Your task to perform on an android device: Open Google Image 0: 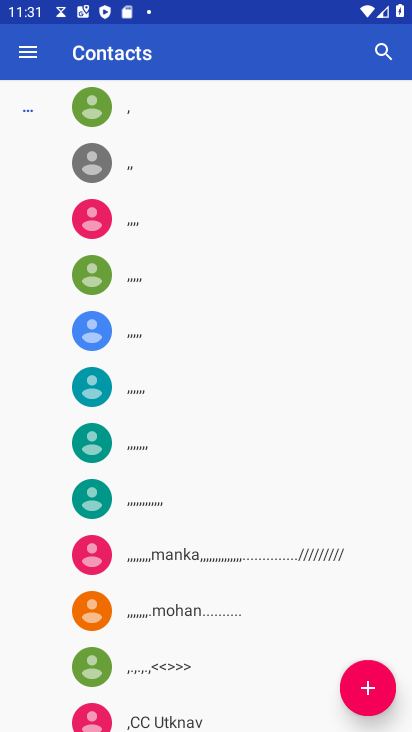
Step 0: press home button
Your task to perform on an android device: Open Google Image 1: 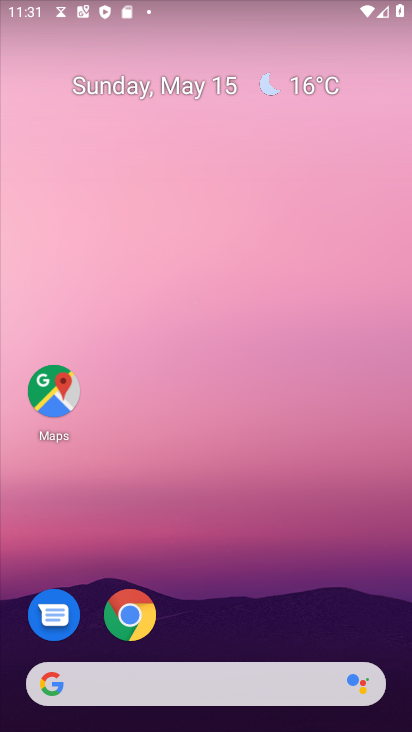
Step 1: drag from (15, 150) to (339, 0)
Your task to perform on an android device: Open Google Image 2: 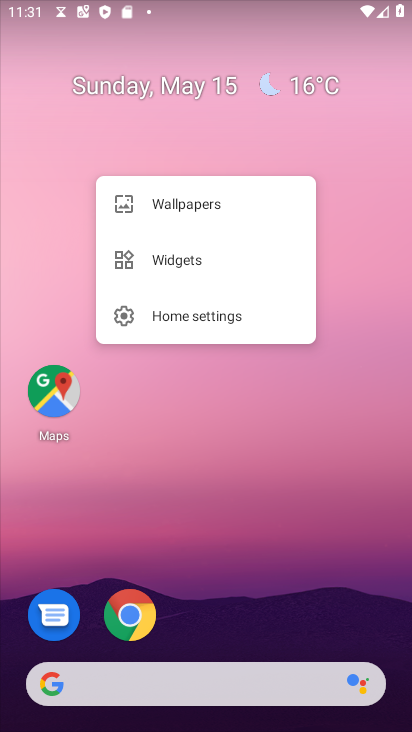
Step 2: drag from (288, 608) to (248, 20)
Your task to perform on an android device: Open Google Image 3: 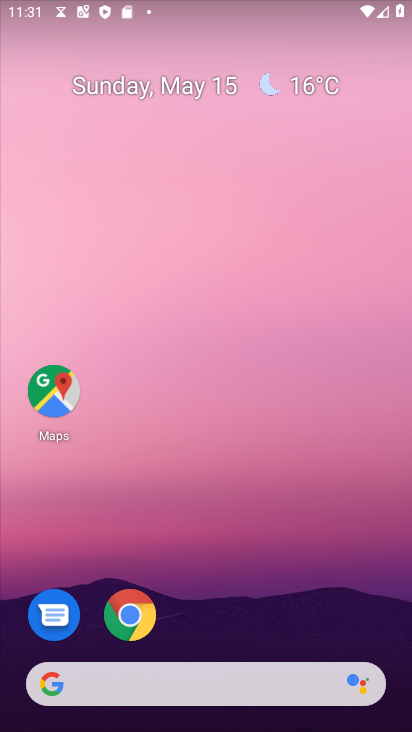
Step 3: drag from (267, 660) to (260, 4)
Your task to perform on an android device: Open Google Image 4: 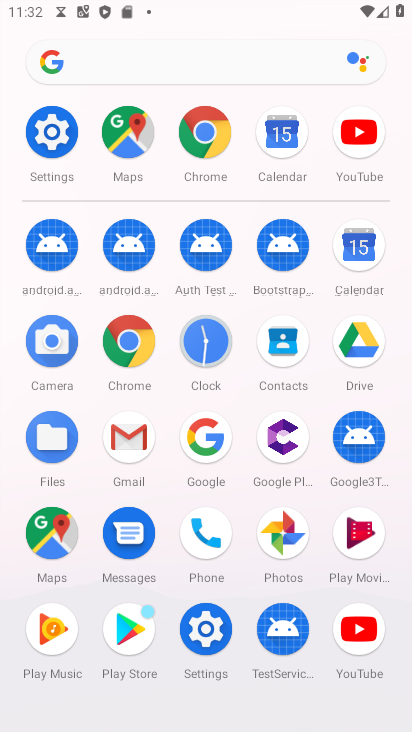
Step 4: click (222, 433)
Your task to perform on an android device: Open Google Image 5: 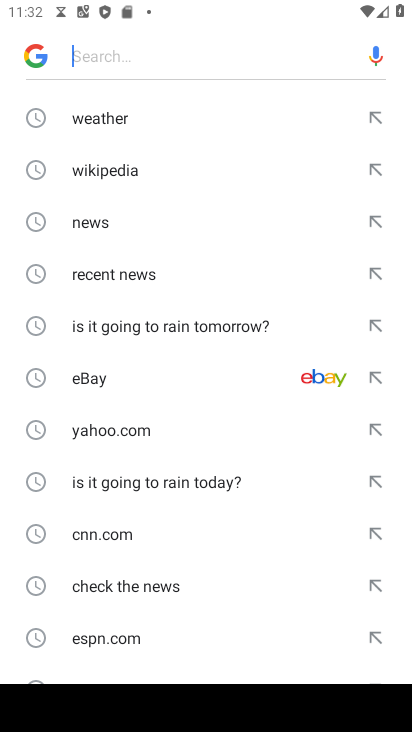
Step 5: task complete